Your task to perform on an android device: turn off smart reply in the gmail app Image 0: 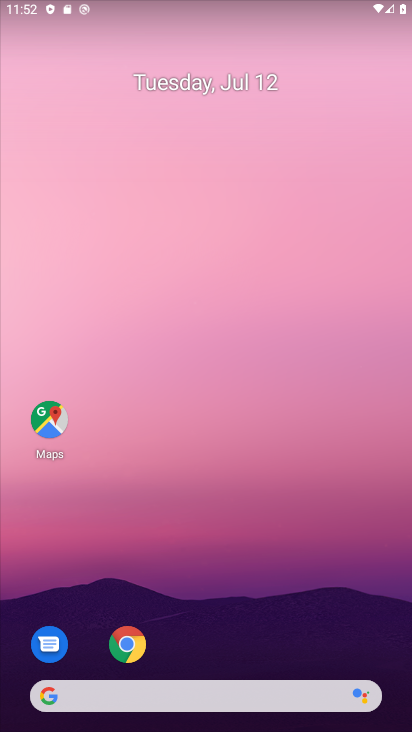
Step 0: drag from (207, 614) to (216, 165)
Your task to perform on an android device: turn off smart reply in the gmail app Image 1: 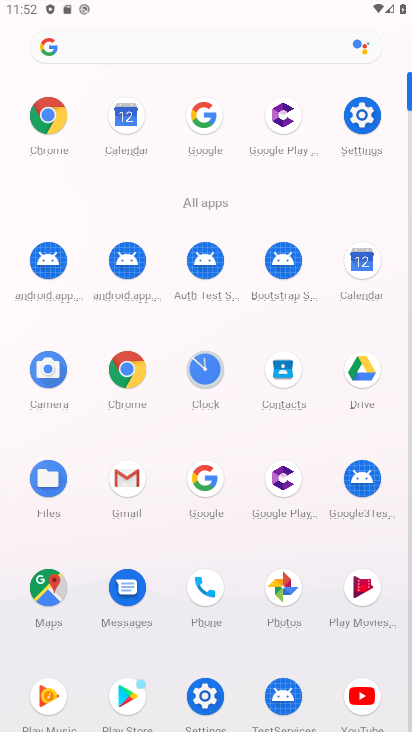
Step 1: click (117, 477)
Your task to perform on an android device: turn off smart reply in the gmail app Image 2: 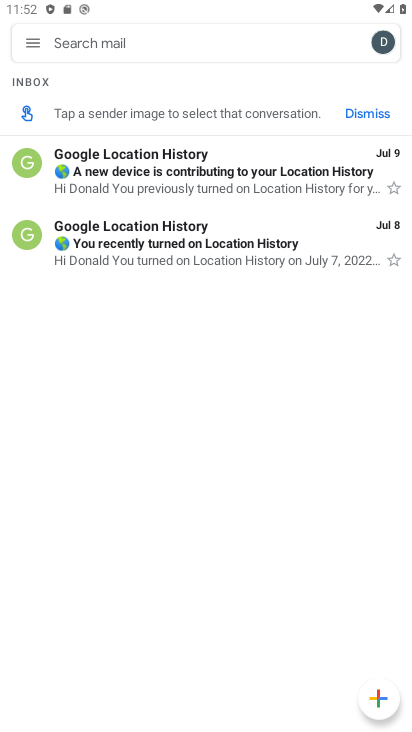
Step 2: click (27, 45)
Your task to perform on an android device: turn off smart reply in the gmail app Image 3: 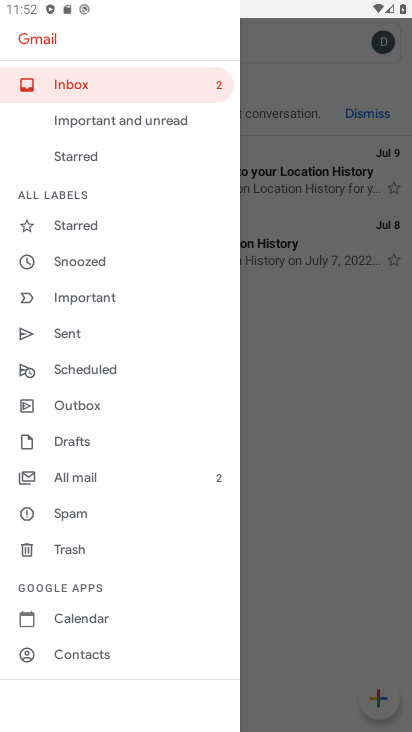
Step 3: drag from (79, 658) to (117, 205)
Your task to perform on an android device: turn off smart reply in the gmail app Image 4: 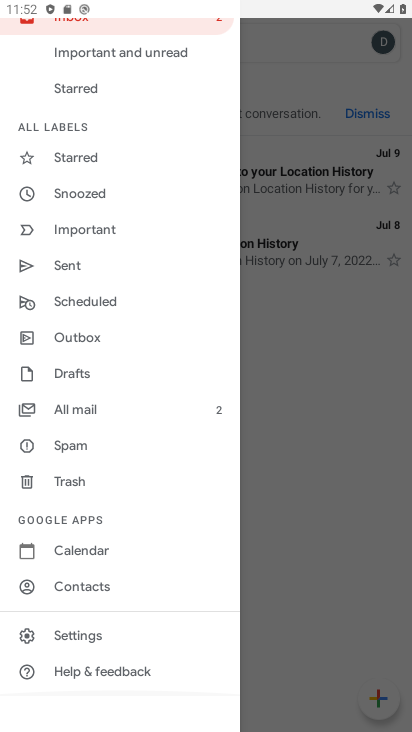
Step 4: click (97, 634)
Your task to perform on an android device: turn off smart reply in the gmail app Image 5: 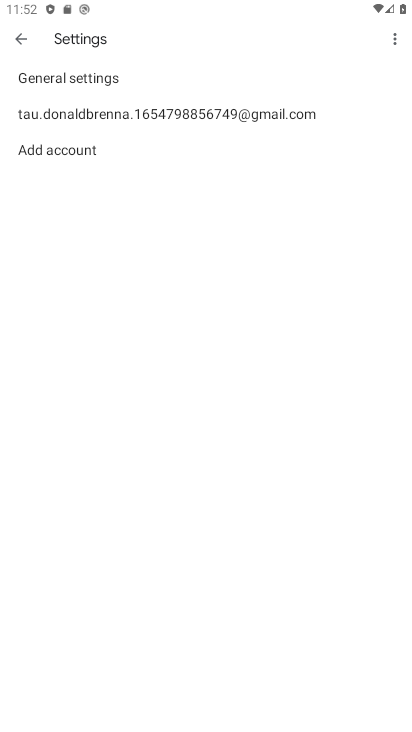
Step 5: click (92, 115)
Your task to perform on an android device: turn off smart reply in the gmail app Image 6: 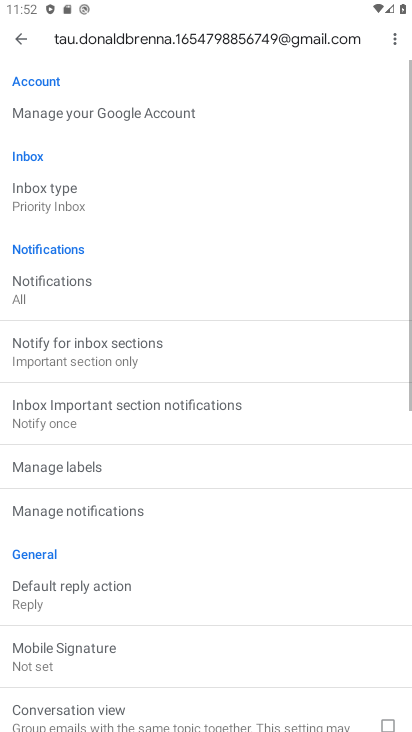
Step 6: drag from (139, 659) to (163, 281)
Your task to perform on an android device: turn off smart reply in the gmail app Image 7: 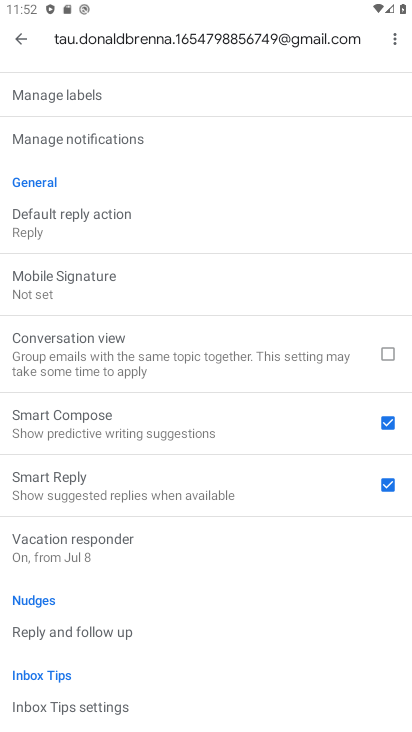
Step 7: click (381, 487)
Your task to perform on an android device: turn off smart reply in the gmail app Image 8: 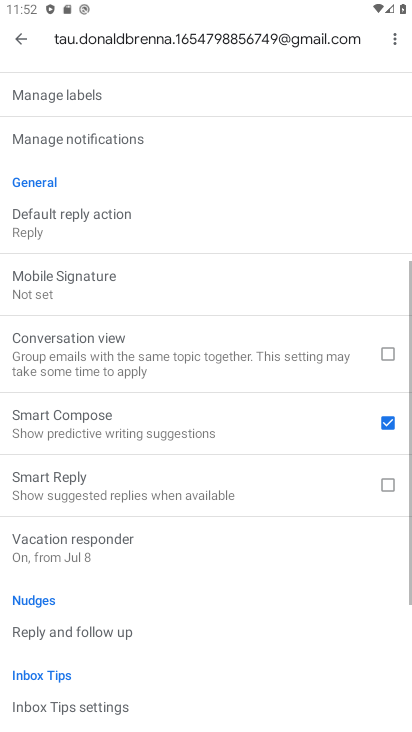
Step 8: task complete